Your task to perform on an android device: Go to eBay Image 0: 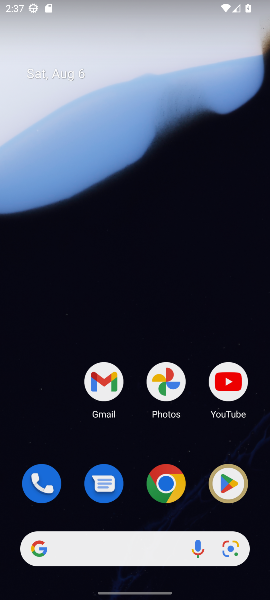
Step 0: press home button
Your task to perform on an android device: Go to eBay Image 1: 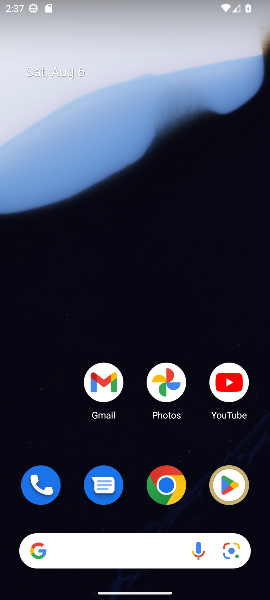
Step 1: click (164, 479)
Your task to perform on an android device: Go to eBay Image 2: 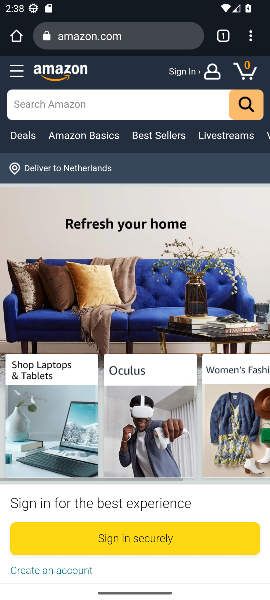
Step 2: click (221, 31)
Your task to perform on an android device: Go to eBay Image 3: 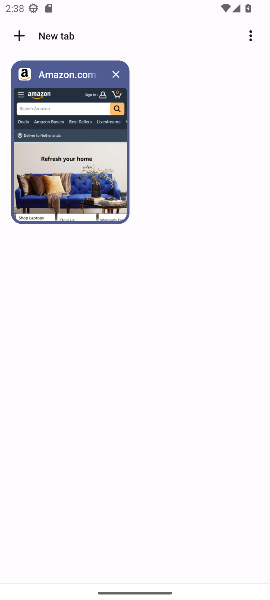
Step 3: click (18, 33)
Your task to perform on an android device: Go to eBay Image 4: 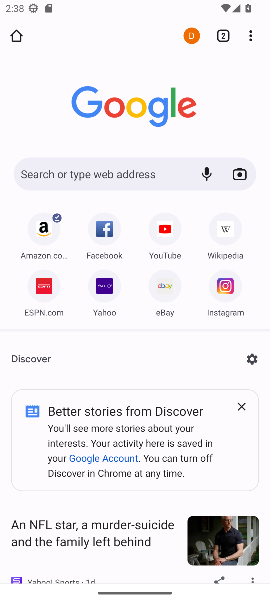
Step 4: click (162, 281)
Your task to perform on an android device: Go to eBay Image 5: 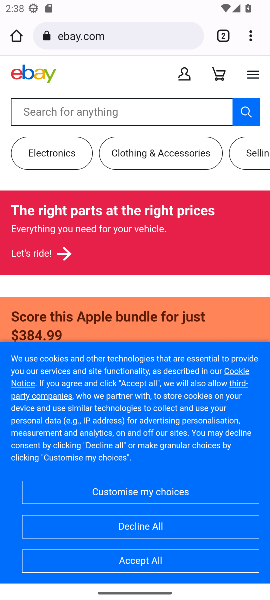
Step 5: click (141, 561)
Your task to perform on an android device: Go to eBay Image 6: 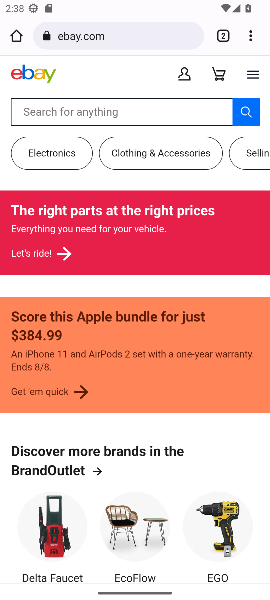
Step 6: task complete